Your task to perform on an android device: Clear the cart on target.com. Search for logitech g903 on target.com, select the first entry, and add it to the cart. Image 0: 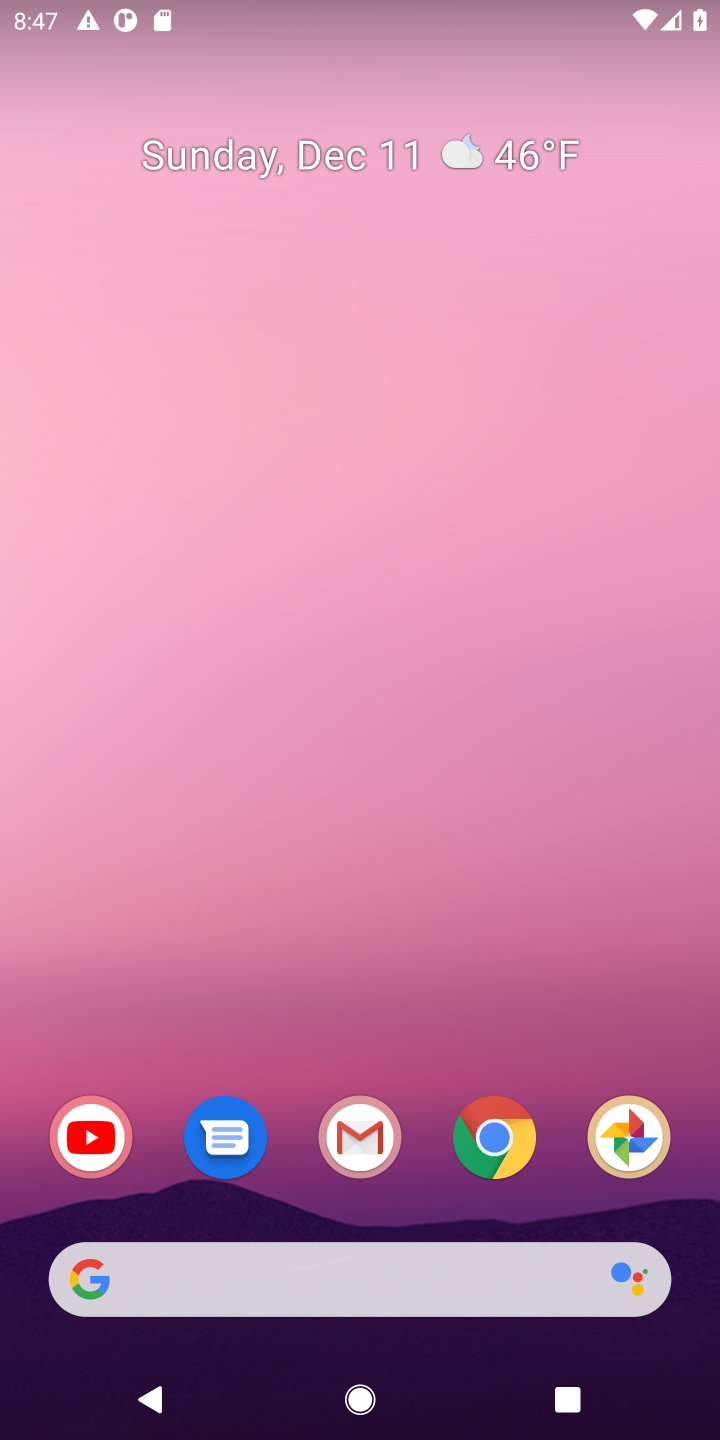
Step 0: click (492, 1143)
Your task to perform on an android device: Clear the cart on target.com. Search for logitech g903 on target.com, select the first entry, and add it to the cart. Image 1: 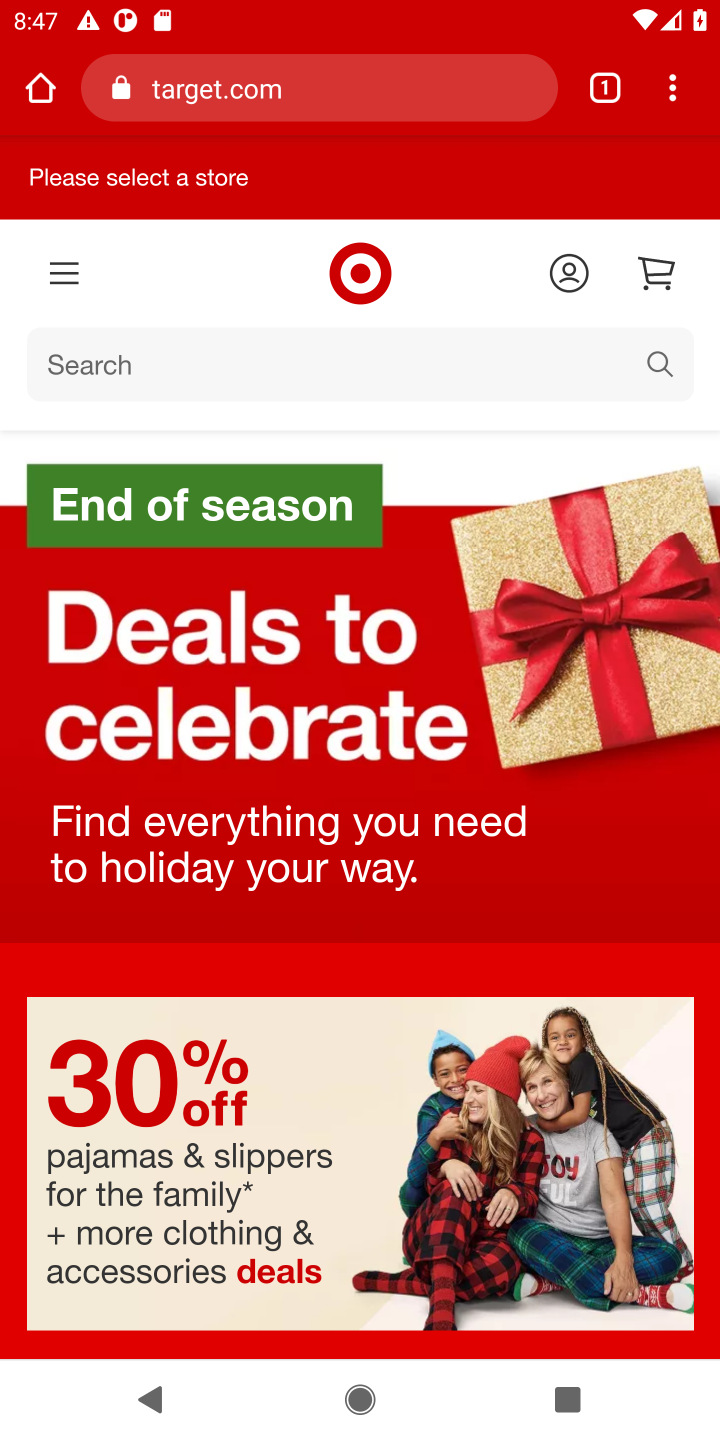
Step 1: click (427, 363)
Your task to perform on an android device: Clear the cart on target.com. Search for logitech g903 on target.com, select the first entry, and add it to the cart. Image 2: 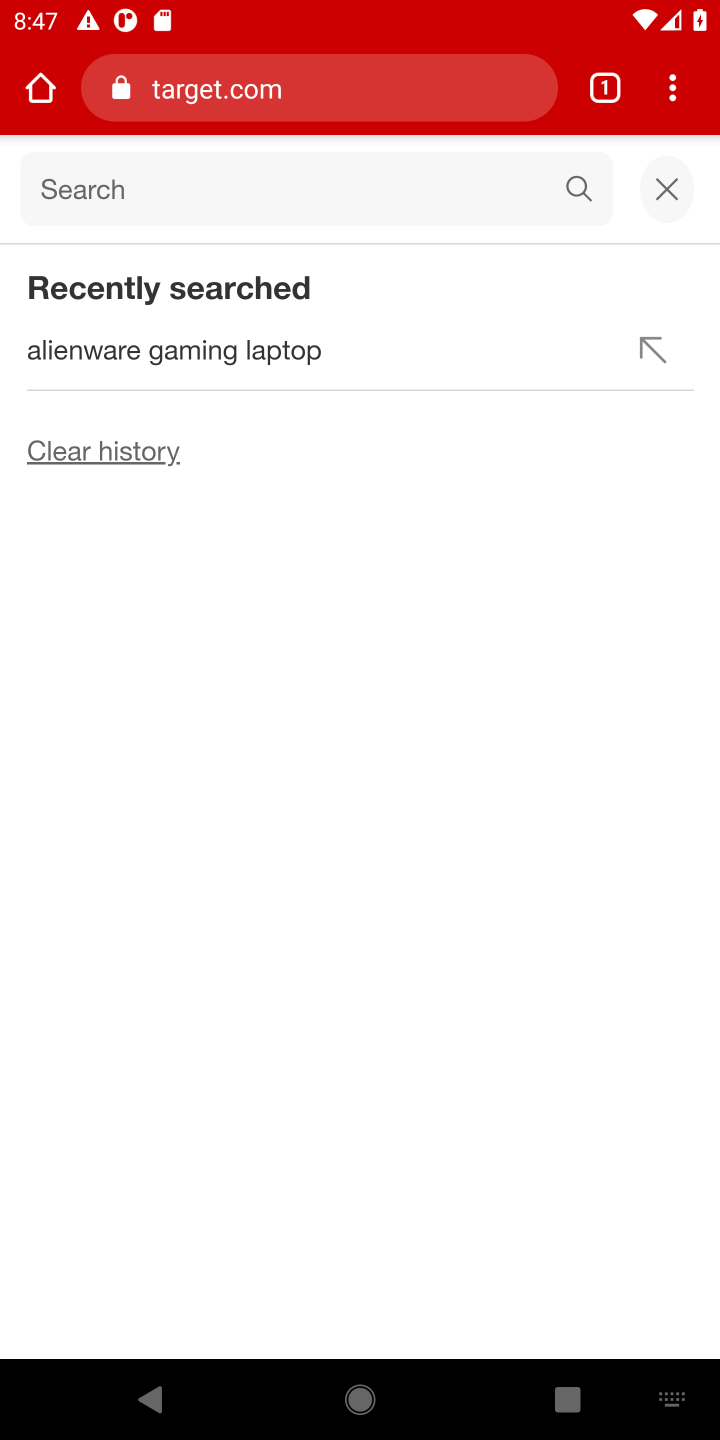
Step 2: type "logitech g903"
Your task to perform on an android device: Clear the cart on target.com. Search for logitech g903 on target.com, select the first entry, and add it to the cart. Image 3: 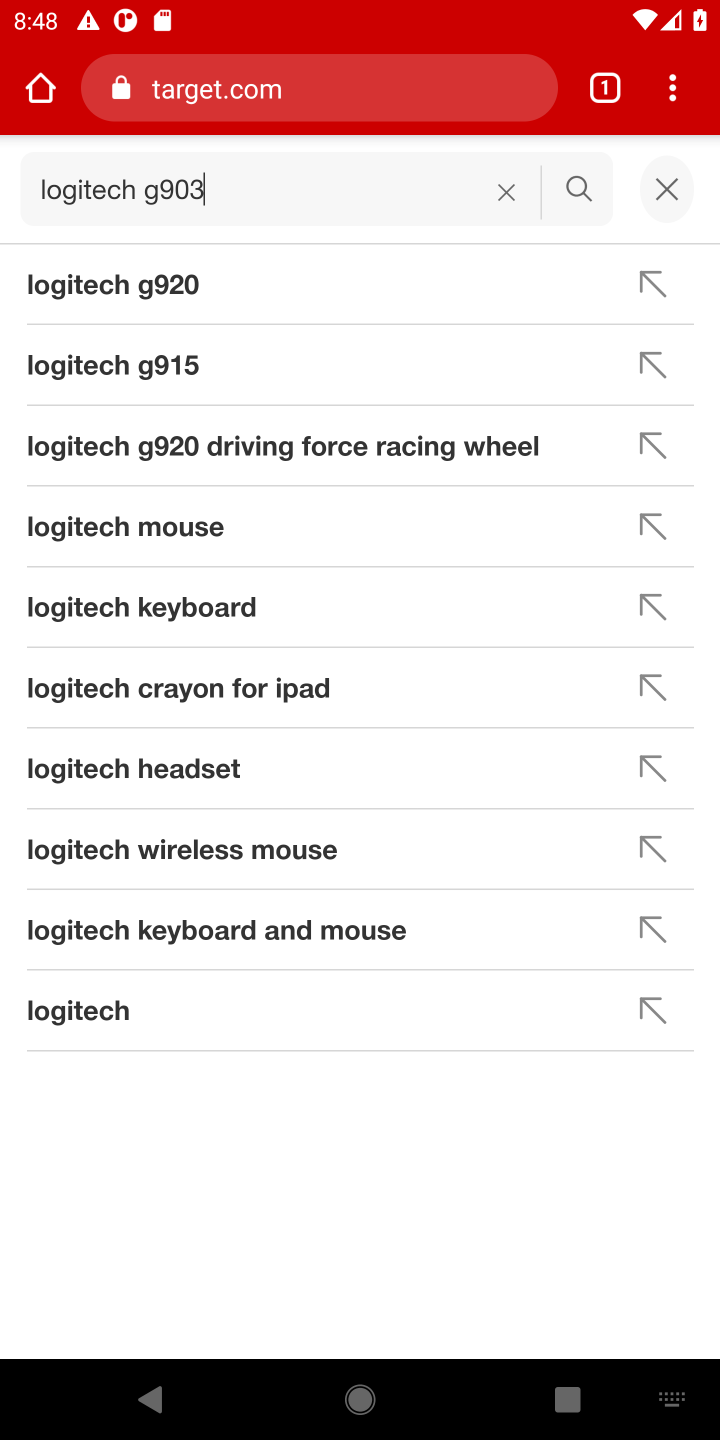
Step 3: click (196, 276)
Your task to perform on an android device: Clear the cart on target.com. Search for logitech g903 on target.com, select the first entry, and add it to the cart. Image 4: 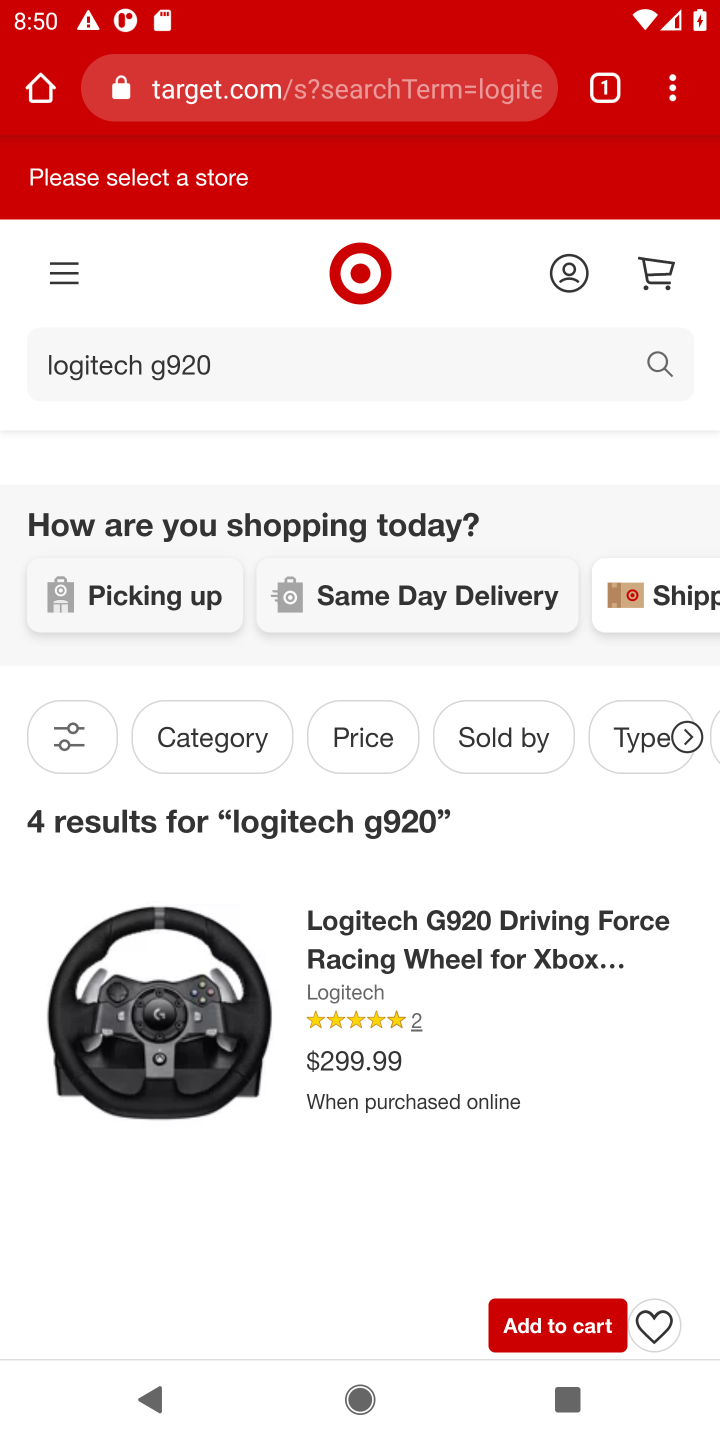
Step 4: click (553, 1324)
Your task to perform on an android device: Clear the cart on target.com. Search for logitech g903 on target.com, select the first entry, and add it to the cart. Image 5: 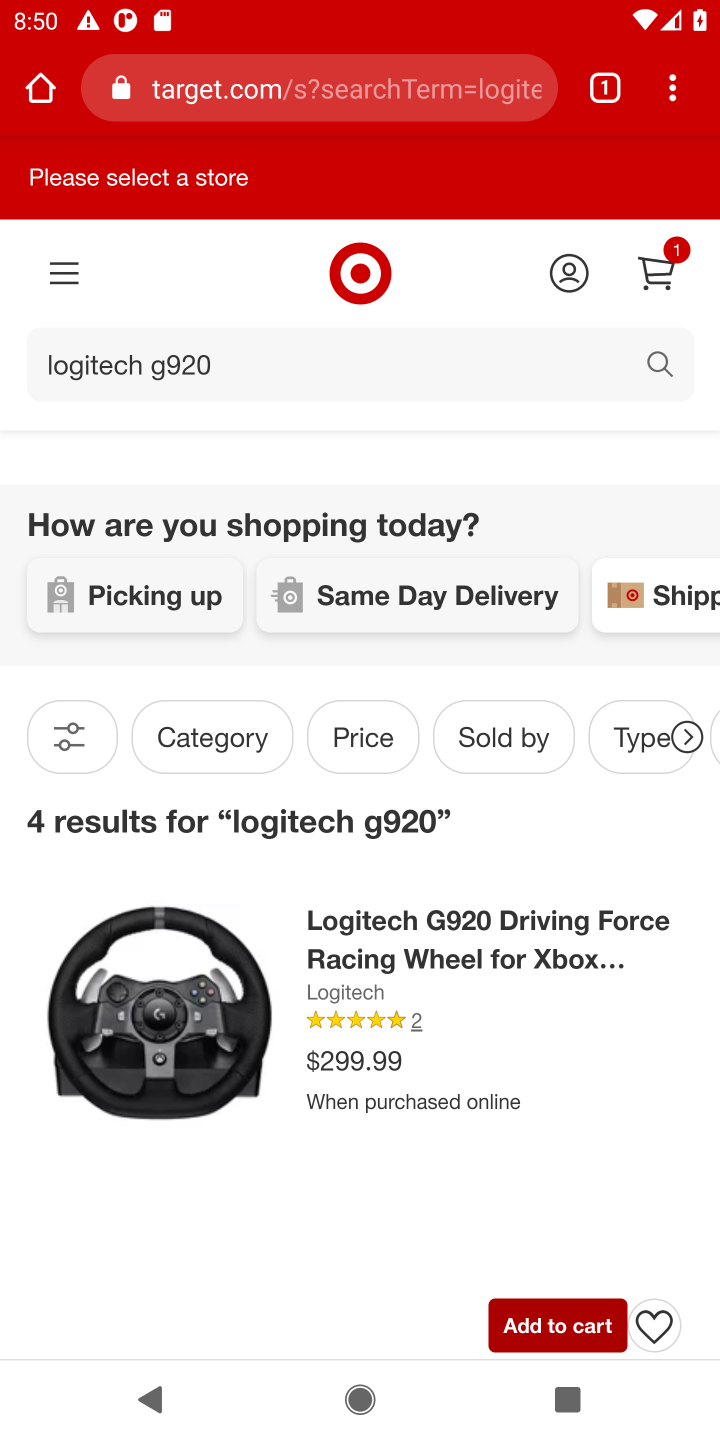
Step 5: task complete